Your task to perform on an android device: When is my next meeting? Image 0: 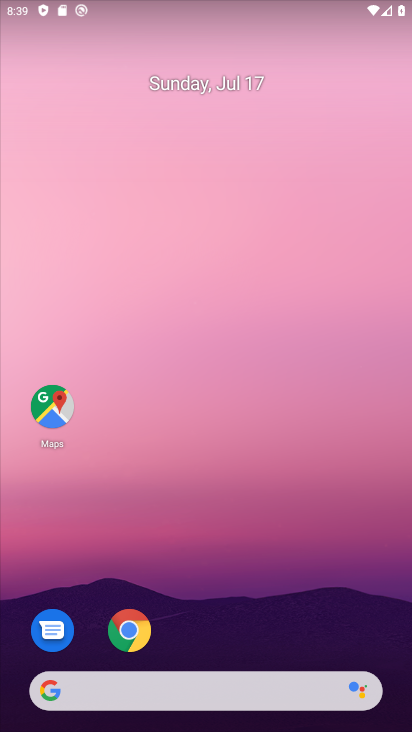
Step 0: drag from (240, 625) to (216, 223)
Your task to perform on an android device: When is my next meeting? Image 1: 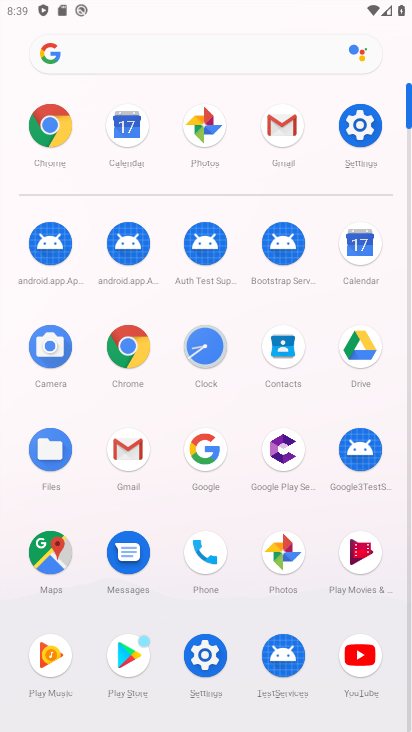
Step 1: click (128, 142)
Your task to perform on an android device: When is my next meeting? Image 2: 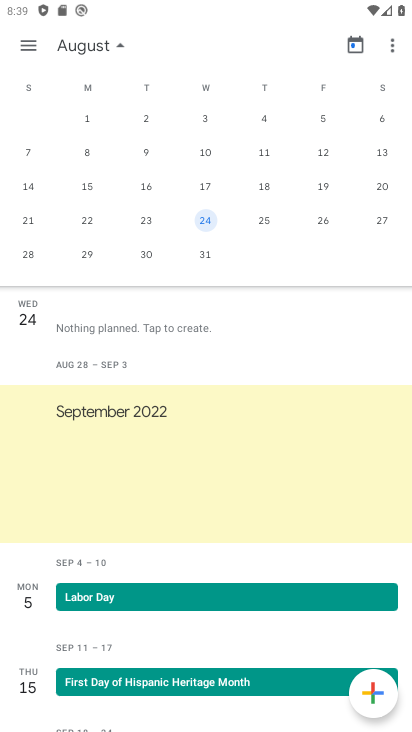
Step 2: task complete